Your task to perform on an android device: Go to Google maps Image 0: 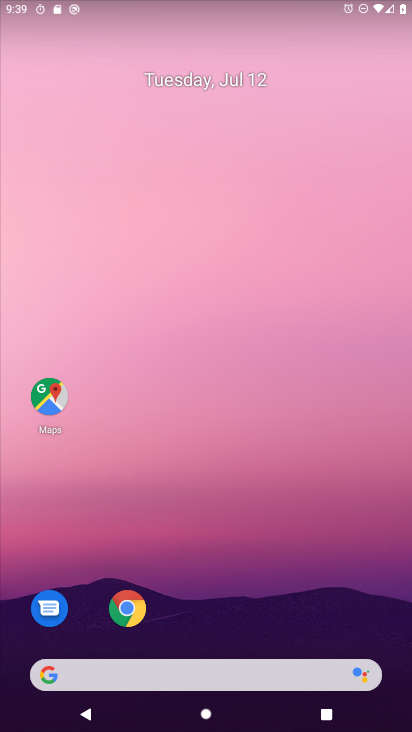
Step 0: click (58, 388)
Your task to perform on an android device: Go to Google maps Image 1: 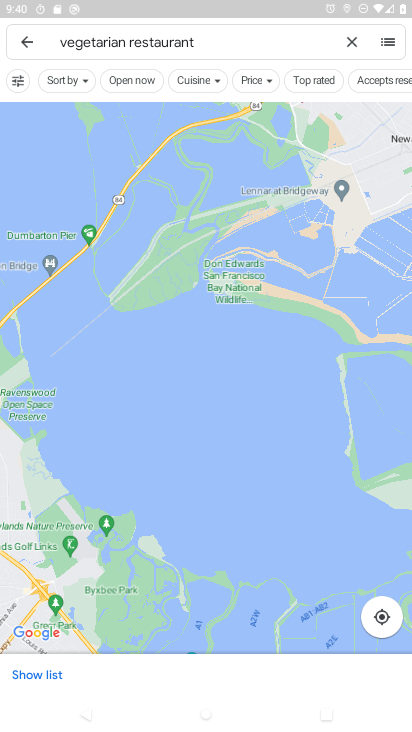
Step 1: task complete